Your task to perform on an android device: change the clock display to digital Image 0: 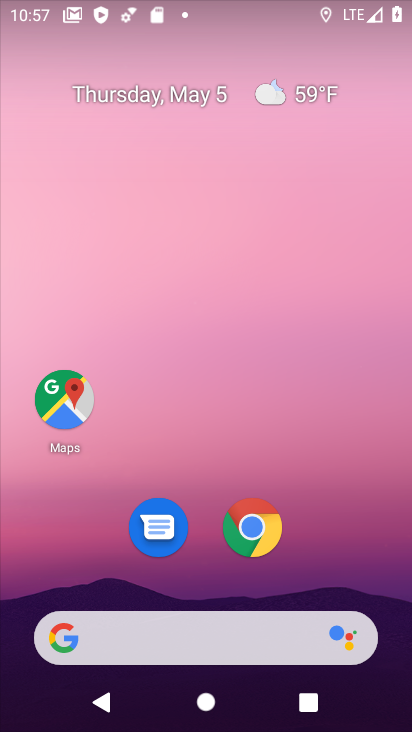
Step 0: drag from (206, 589) to (213, 6)
Your task to perform on an android device: change the clock display to digital Image 1: 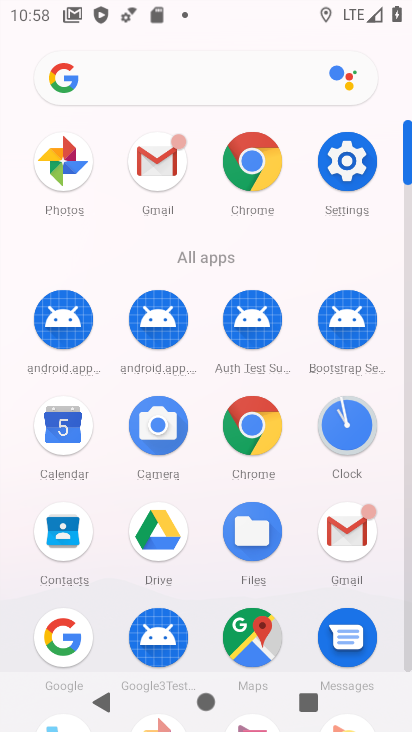
Step 1: click (354, 449)
Your task to perform on an android device: change the clock display to digital Image 2: 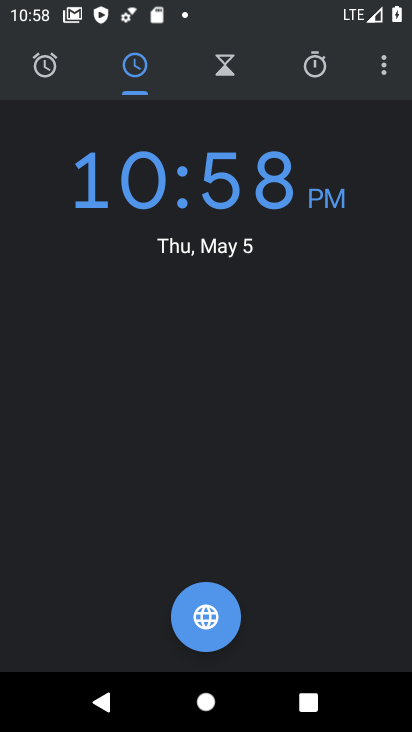
Step 2: click (371, 79)
Your task to perform on an android device: change the clock display to digital Image 3: 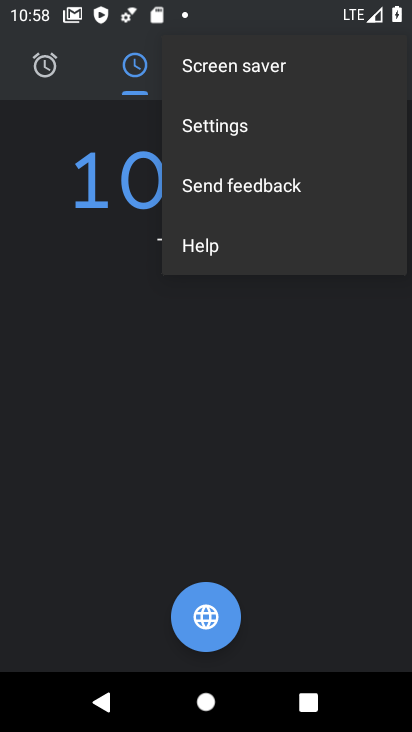
Step 3: click (231, 121)
Your task to perform on an android device: change the clock display to digital Image 4: 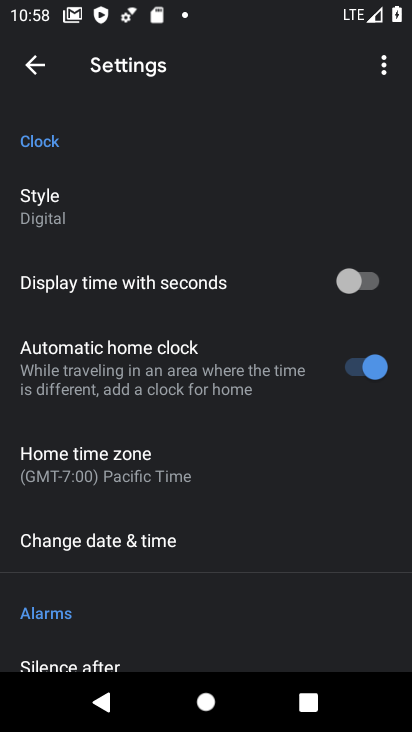
Step 4: click (93, 207)
Your task to perform on an android device: change the clock display to digital Image 5: 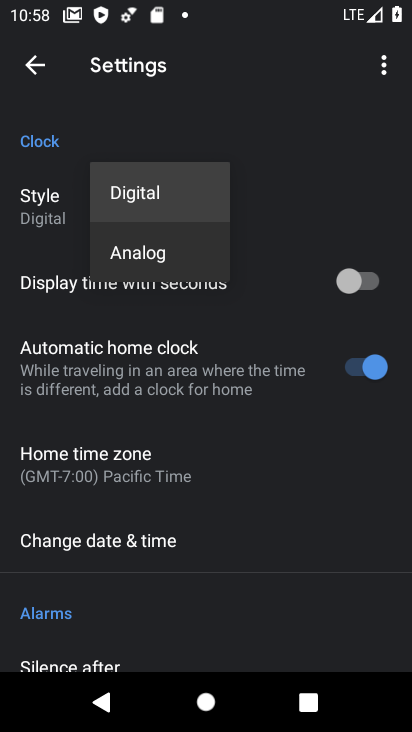
Step 5: task complete